Your task to perform on an android device: turn off location history Image 0: 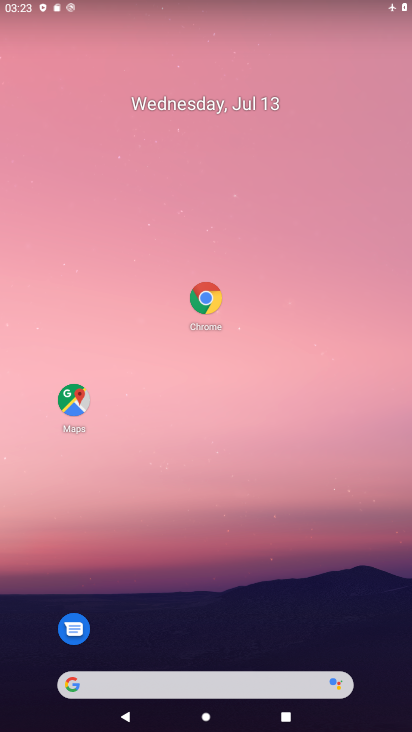
Step 0: drag from (259, 580) to (272, 172)
Your task to perform on an android device: turn off location history Image 1: 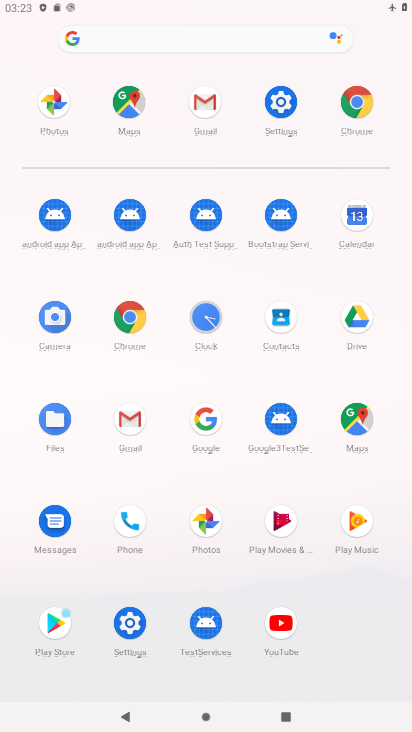
Step 1: click (277, 102)
Your task to perform on an android device: turn off location history Image 2: 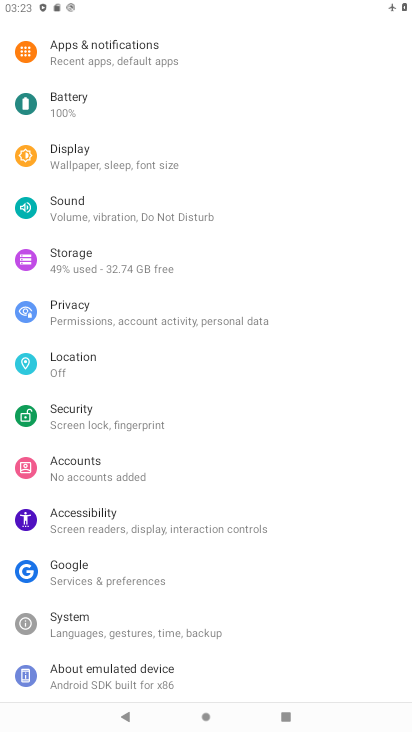
Step 2: click (125, 362)
Your task to perform on an android device: turn off location history Image 3: 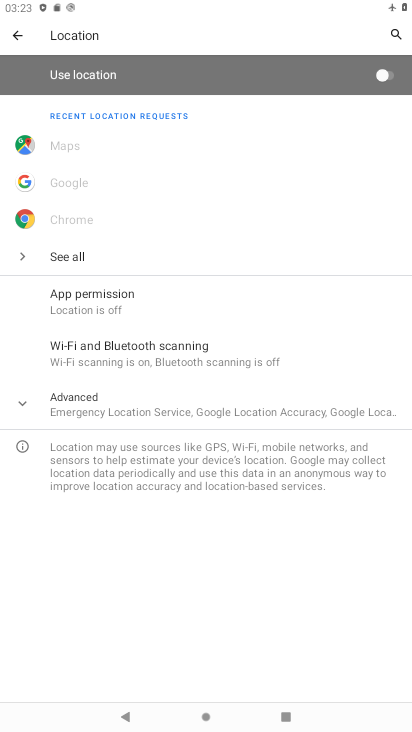
Step 3: click (139, 420)
Your task to perform on an android device: turn off location history Image 4: 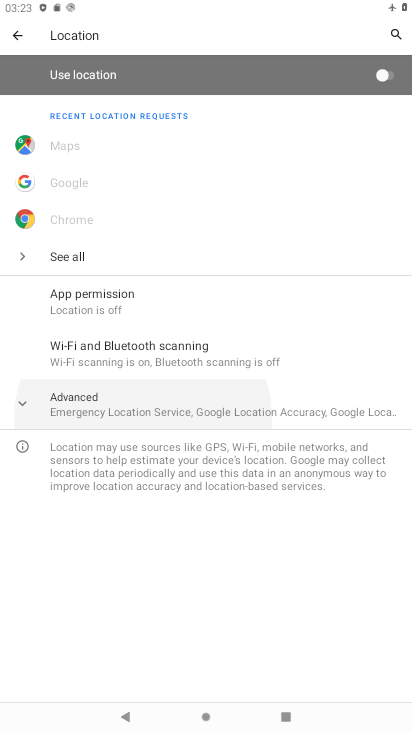
Step 4: click (139, 410)
Your task to perform on an android device: turn off location history Image 5: 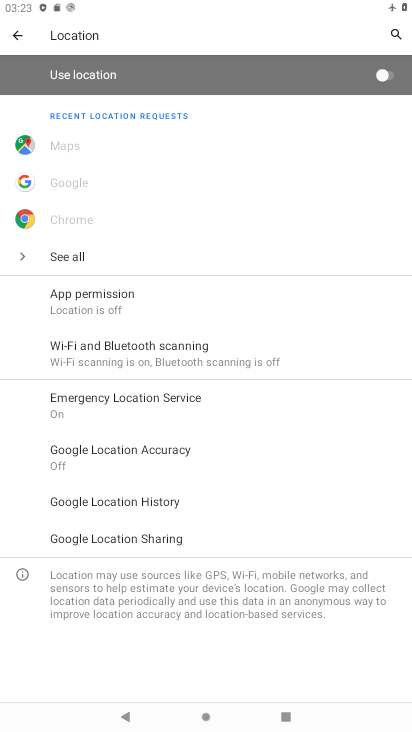
Step 5: click (165, 500)
Your task to perform on an android device: turn off location history Image 6: 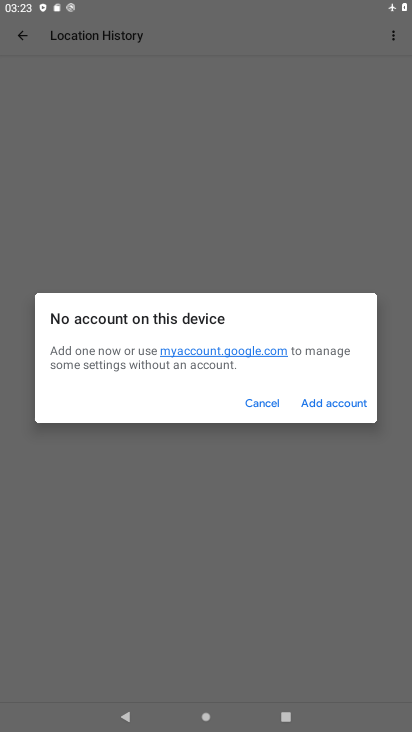
Step 6: click (259, 398)
Your task to perform on an android device: turn off location history Image 7: 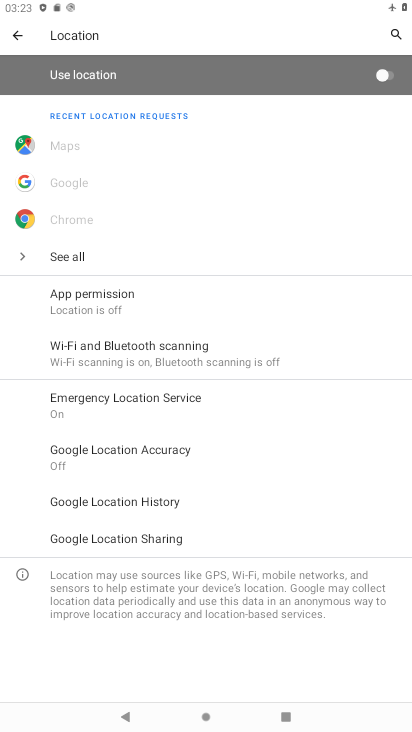
Step 7: click (160, 493)
Your task to perform on an android device: turn off location history Image 8: 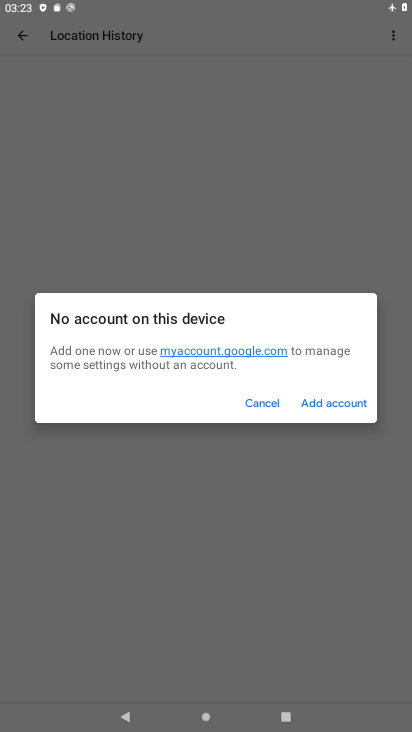
Step 8: task complete